Your task to perform on an android device: visit the assistant section in the google photos Image 0: 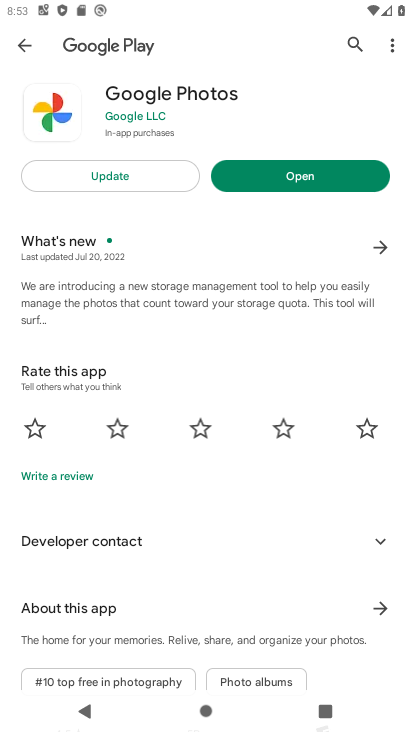
Step 0: press home button
Your task to perform on an android device: visit the assistant section in the google photos Image 1: 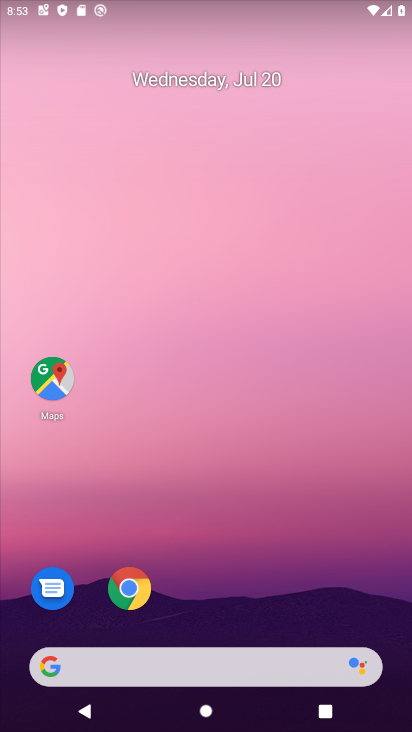
Step 1: drag from (167, 627) to (268, 14)
Your task to perform on an android device: visit the assistant section in the google photos Image 2: 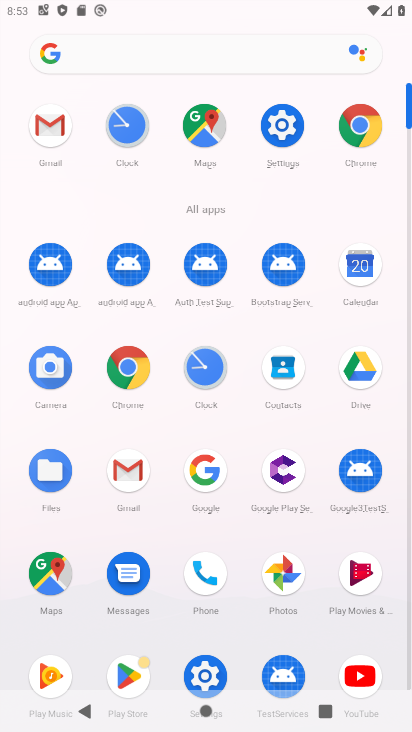
Step 2: click (273, 577)
Your task to perform on an android device: visit the assistant section in the google photos Image 3: 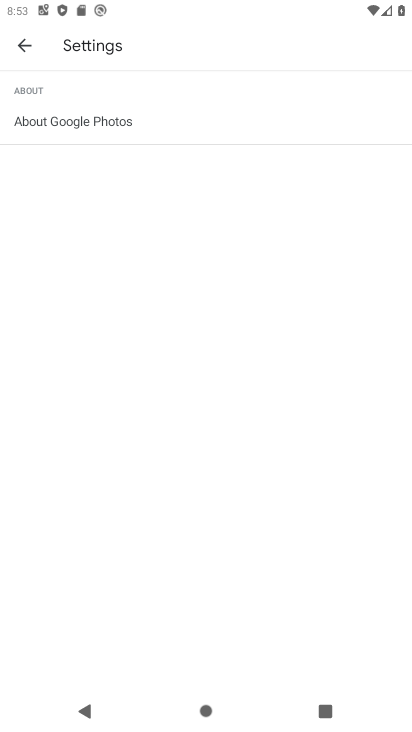
Step 3: click (25, 48)
Your task to perform on an android device: visit the assistant section in the google photos Image 4: 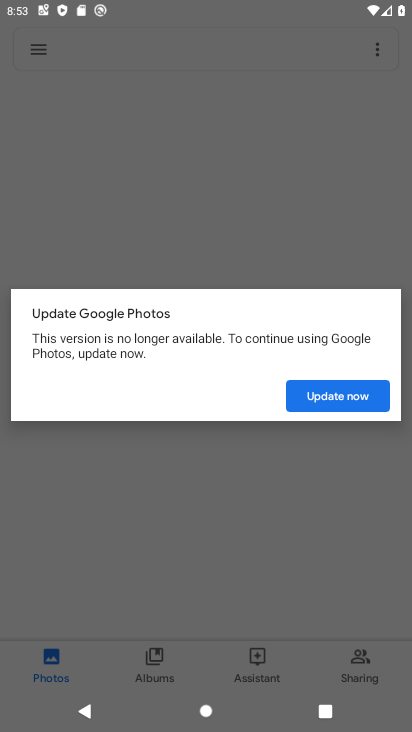
Step 4: click (368, 408)
Your task to perform on an android device: visit the assistant section in the google photos Image 5: 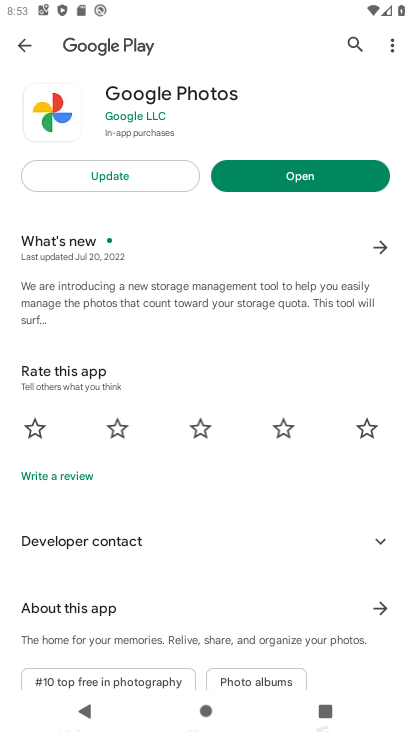
Step 5: click (300, 192)
Your task to perform on an android device: visit the assistant section in the google photos Image 6: 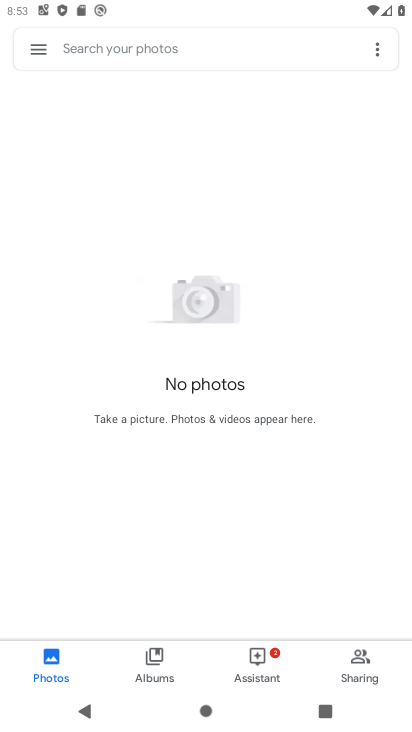
Step 6: click (258, 673)
Your task to perform on an android device: visit the assistant section in the google photos Image 7: 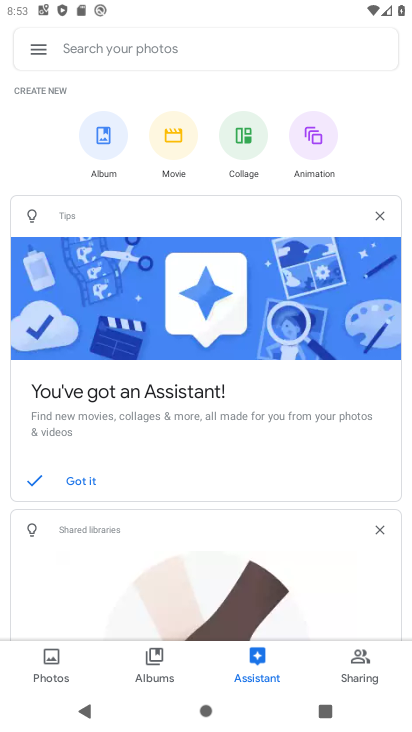
Step 7: task complete